Your task to perform on an android device: star an email in the gmail app Image 0: 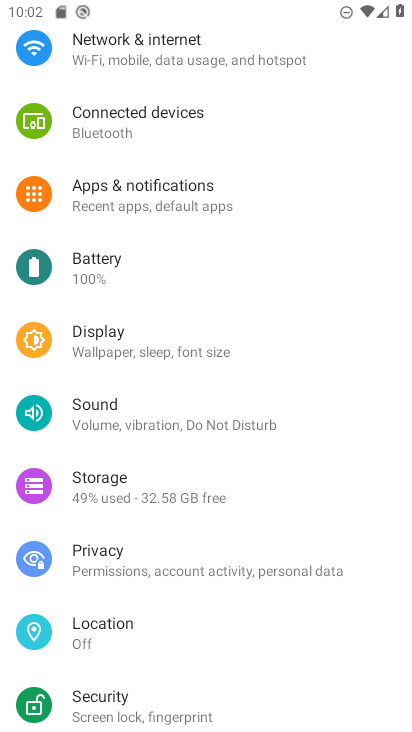
Step 0: press home button
Your task to perform on an android device: star an email in the gmail app Image 1: 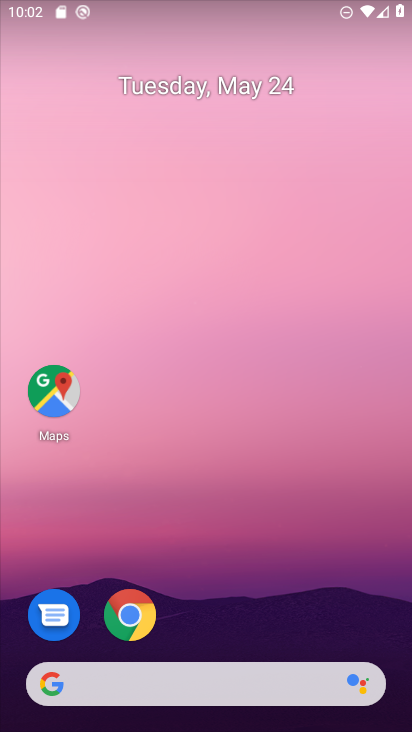
Step 1: drag from (367, 649) to (381, 272)
Your task to perform on an android device: star an email in the gmail app Image 2: 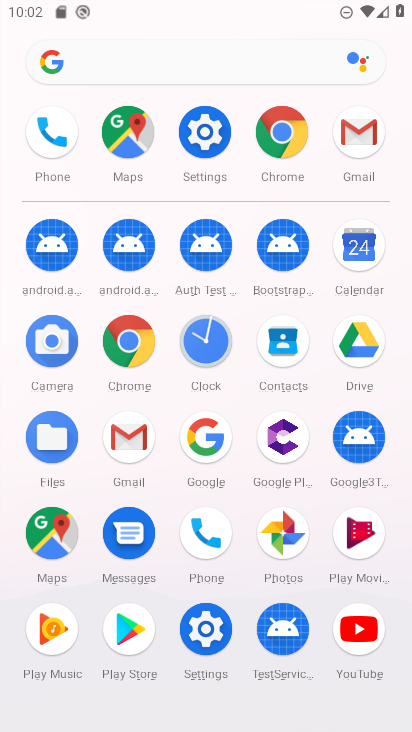
Step 2: click (131, 460)
Your task to perform on an android device: star an email in the gmail app Image 3: 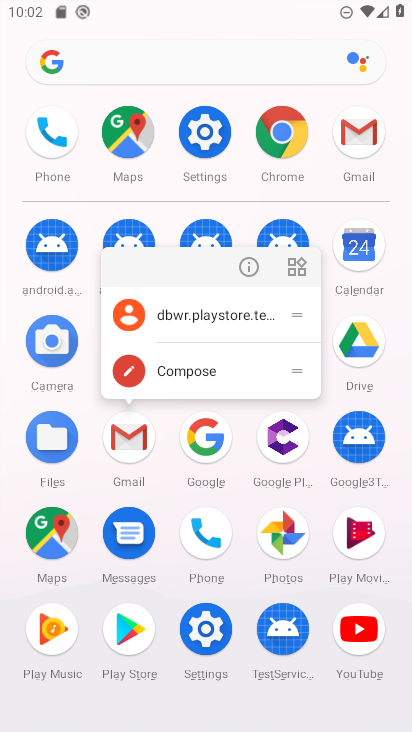
Step 3: click (131, 460)
Your task to perform on an android device: star an email in the gmail app Image 4: 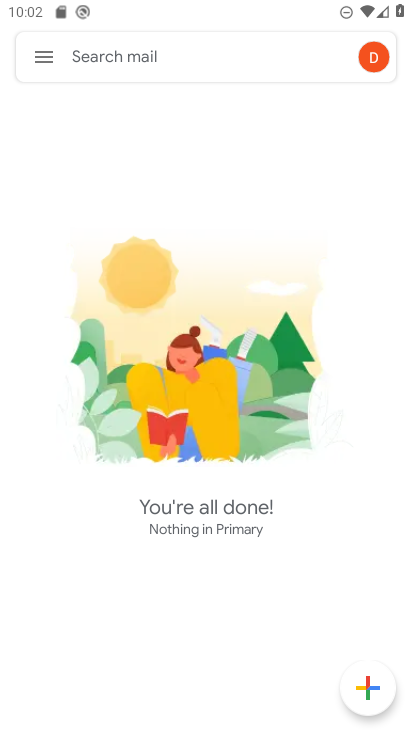
Step 4: task complete